Your task to perform on an android device: set the stopwatch Image 0: 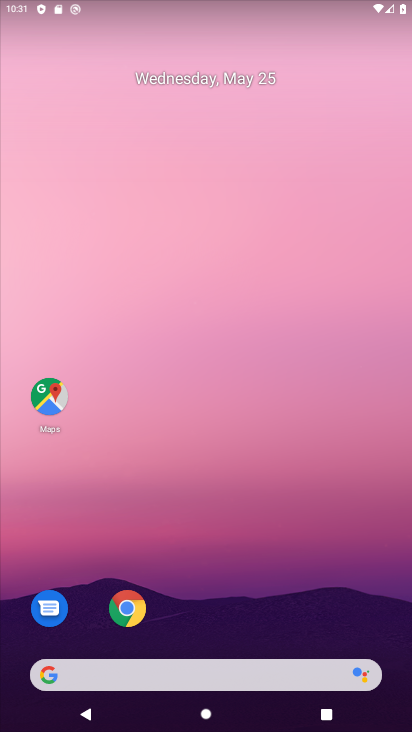
Step 0: drag from (216, 622) to (197, 78)
Your task to perform on an android device: set the stopwatch Image 1: 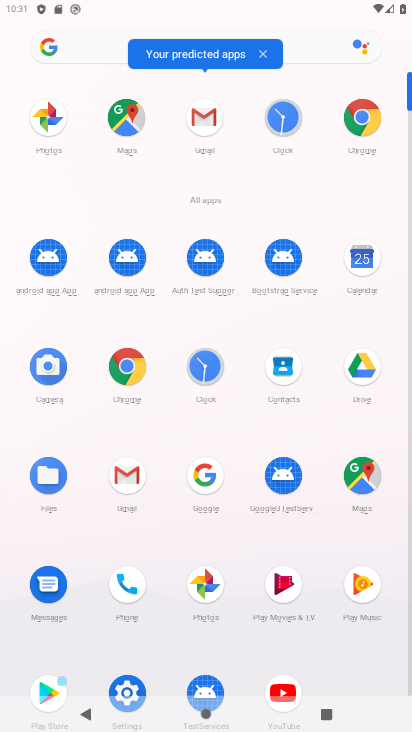
Step 1: click (292, 115)
Your task to perform on an android device: set the stopwatch Image 2: 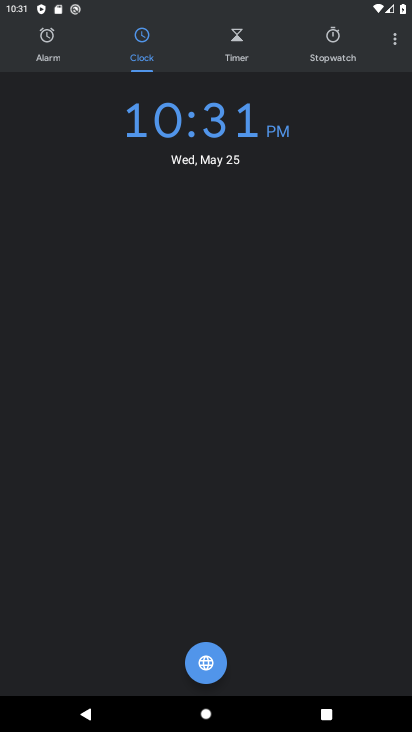
Step 2: click (324, 55)
Your task to perform on an android device: set the stopwatch Image 3: 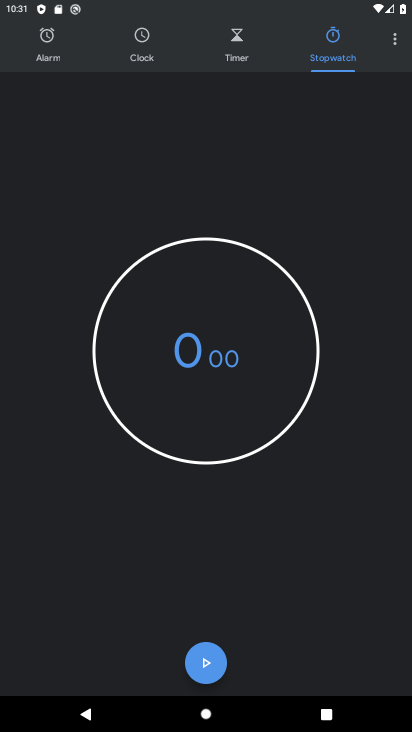
Step 3: click (207, 655)
Your task to perform on an android device: set the stopwatch Image 4: 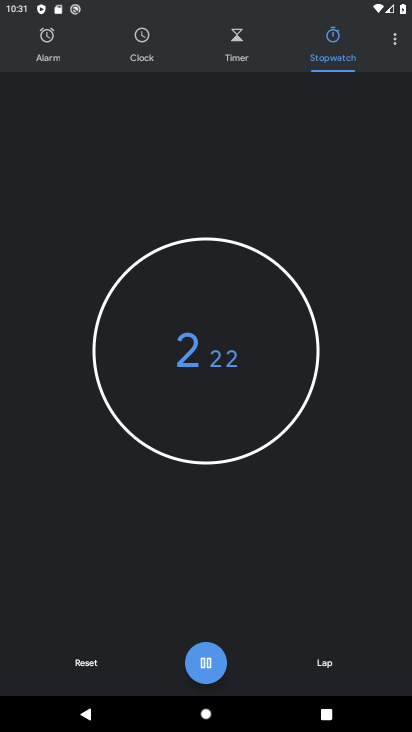
Step 4: task complete